Your task to perform on an android device: turn off location Image 0: 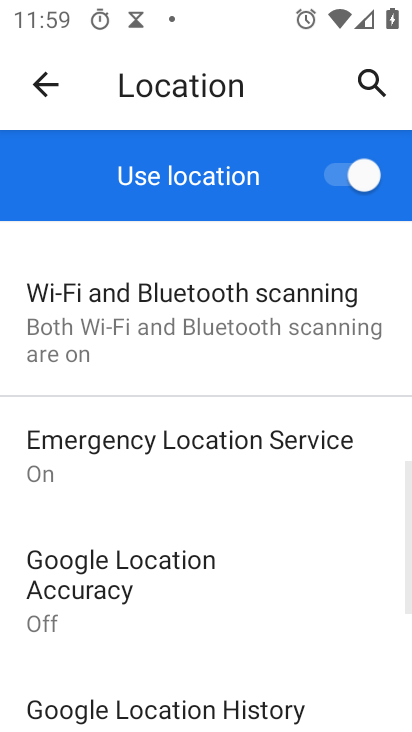
Step 0: press home button
Your task to perform on an android device: turn off location Image 1: 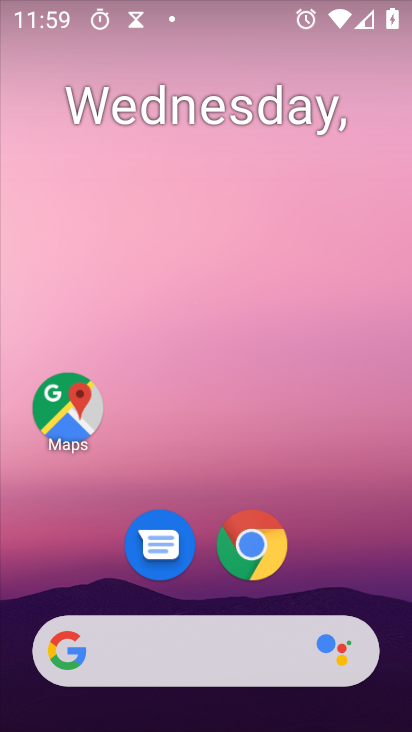
Step 1: drag from (184, 657) to (338, 122)
Your task to perform on an android device: turn off location Image 2: 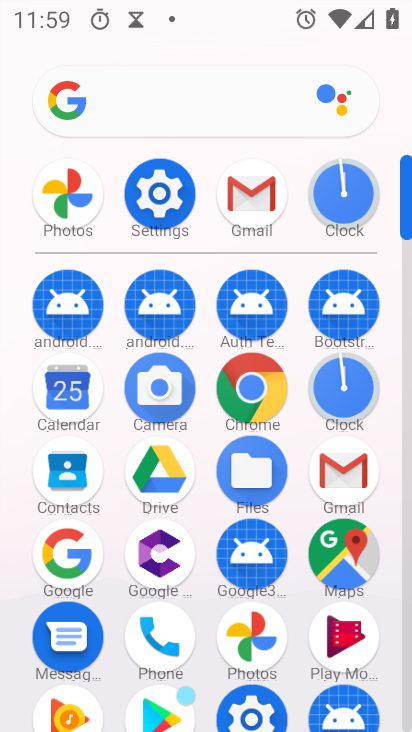
Step 2: click (172, 201)
Your task to perform on an android device: turn off location Image 3: 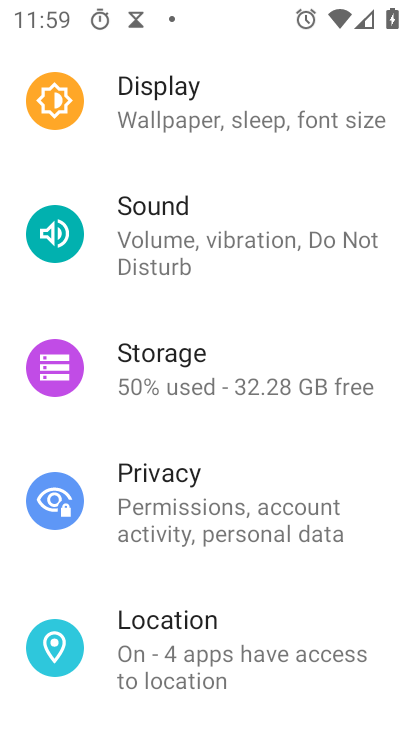
Step 3: click (204, 627)
Your task to perform on an android device: turn off location Image 4: 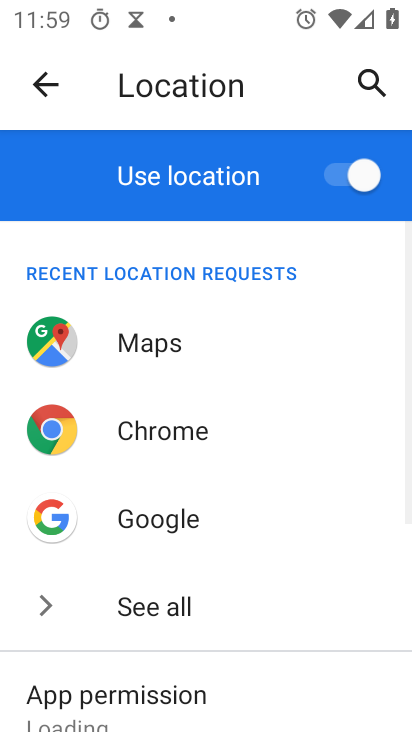
Step 4: click (331, 168)
Your task to perform on an android device: turn off location Image 5: 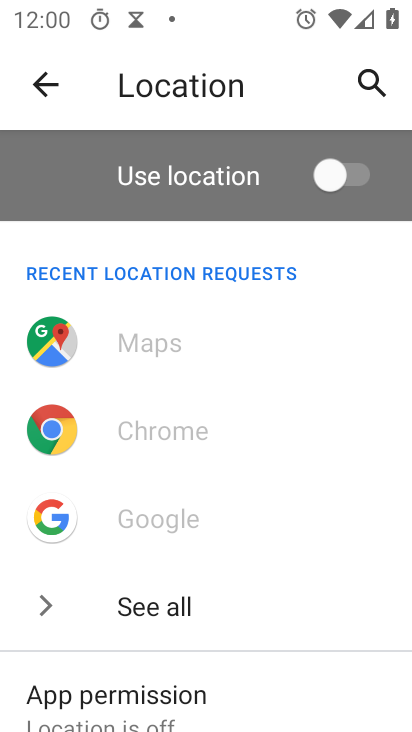
Step 5: task complete